Your task to perform on an android device: Open the map Image 0: 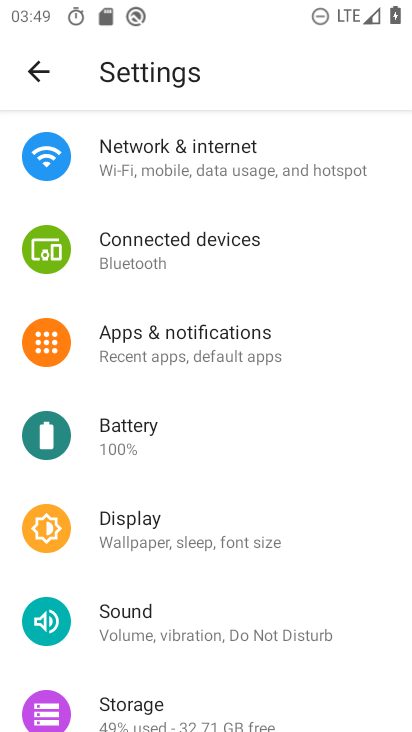
Step 0: press home button
Your task to perform on an android device: Open the map Image 1: 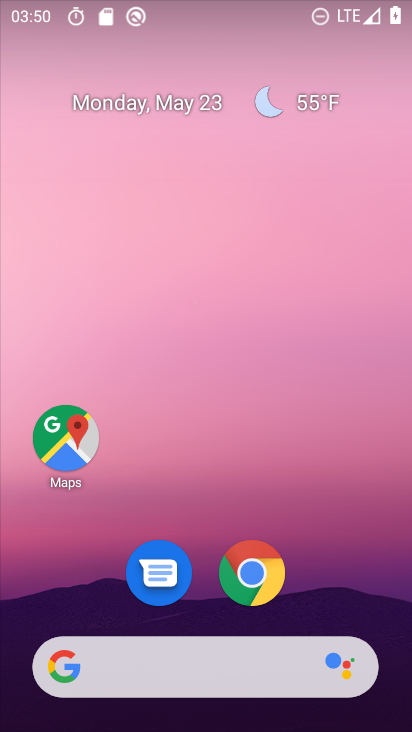
Step 1: click (59, 431)
Your task to perform on an android device: Open the map Image 2: 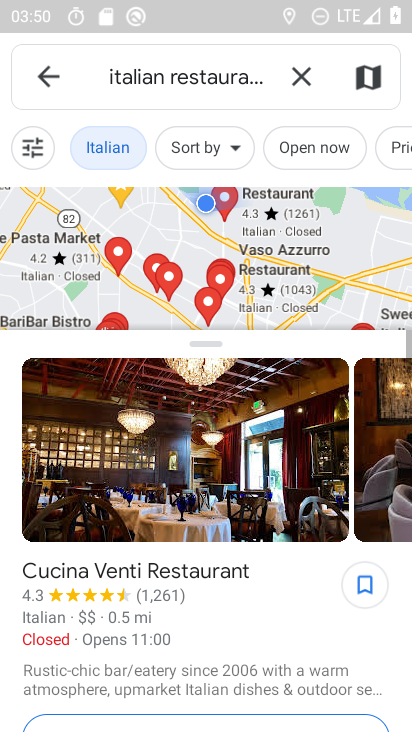
Step 2: task complete